Your task to perform on an android device: What's the weather going to be this weekend? Image 0: 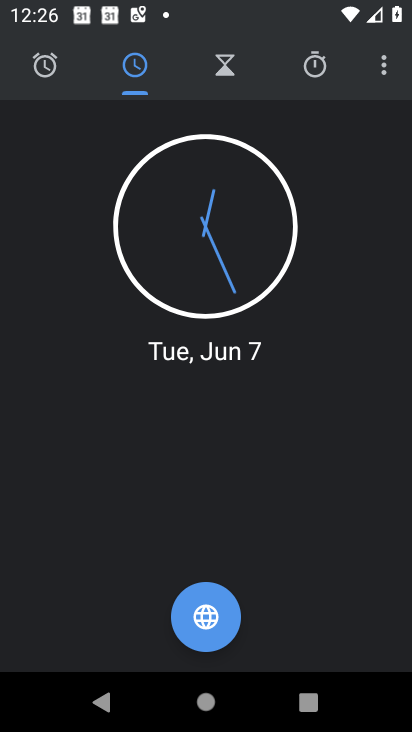
Step 0: press back button
Your task to perform on an android device: What's the weather going to be this weekend? Image 1: 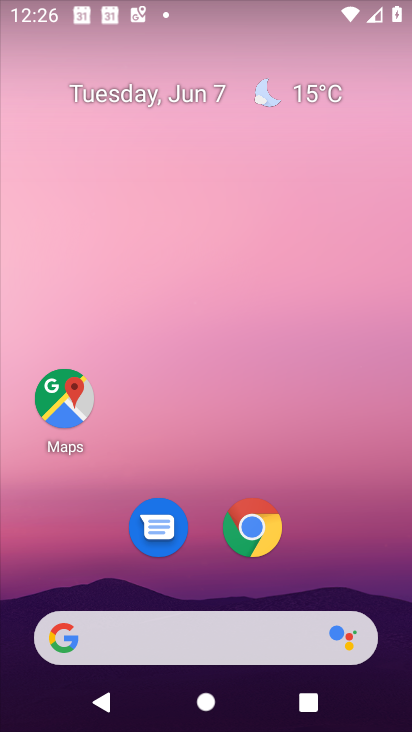
Step 1: task complete